Your task to perform on an android device: toggle pop-ups in chrome Image 0: 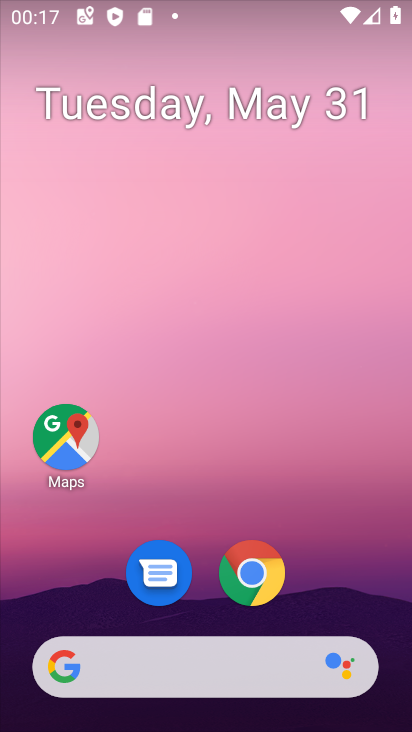
Step 0: click (279, 583)
Your task to perform on an android device: toggle pop-ups in chrome Image 1: 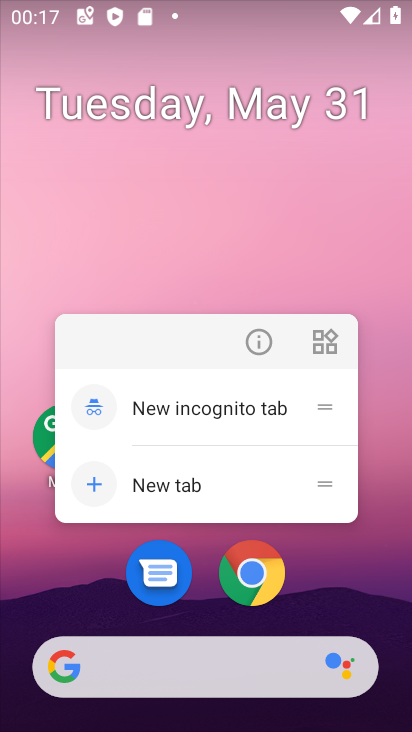
Step 1: click (253, 581)
Your task to perform on an android device: toggle pop-ups in chrome Image 2: 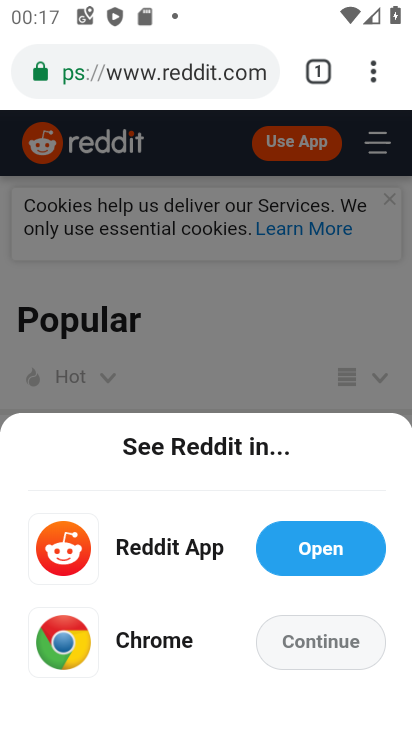
Step 2: click (381, 66)
Your task to perform on an android device: toggle pop-ups in chrome Image 3: 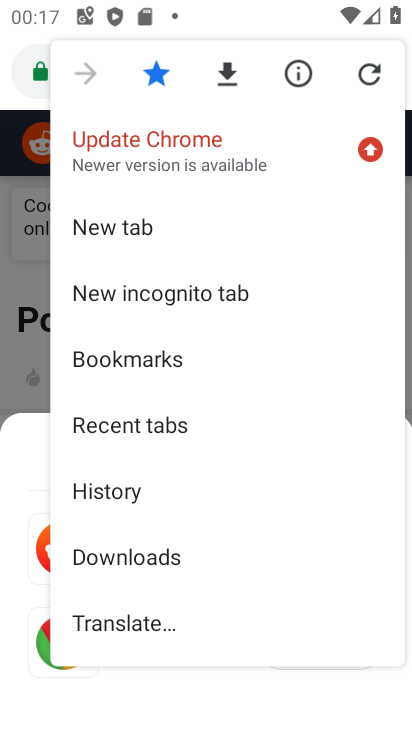
Step 3: drag from (221, 624) to (271, 39)
Your task to perform on an android device: toggle pop-ups in chrome Image 4: 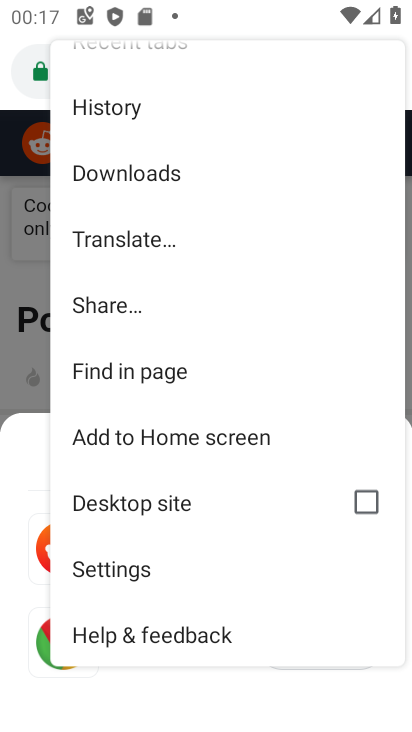
Step 4: click (158, 569)
Your task to perform on an android device: toggle pop-ups in chrome Image 5: 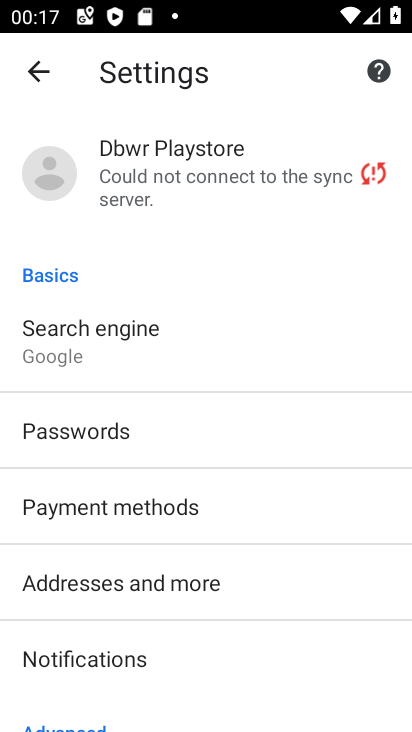
Step 5: drag from (254, 593) to (271, 10)
Your task to perform on an android device: toggle pop-ups in chrome Image 6: 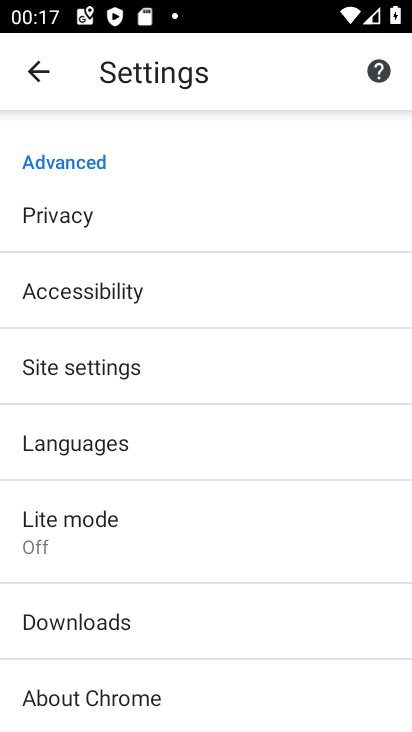
Step 6: click (180, 358)
Your task to perform on an android device: toggle pop-ups in chrome Image 7: 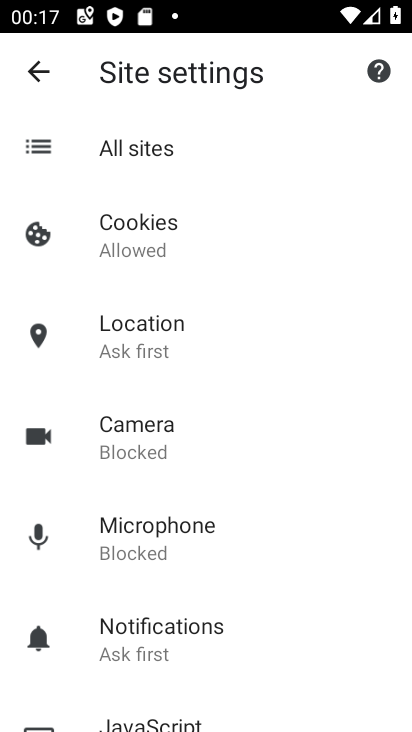
Step 7: drag from (255, 687) to (272, 20)
Your task to perform on an android device: toggle pop-ups in chrome Image 8: 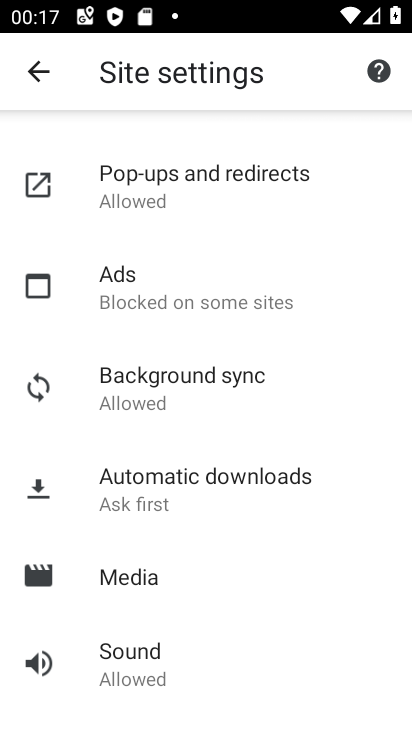
Step 8: click (246, 191)
Your task to perform on an android device: toggle pop-ups in chrome Image 9: 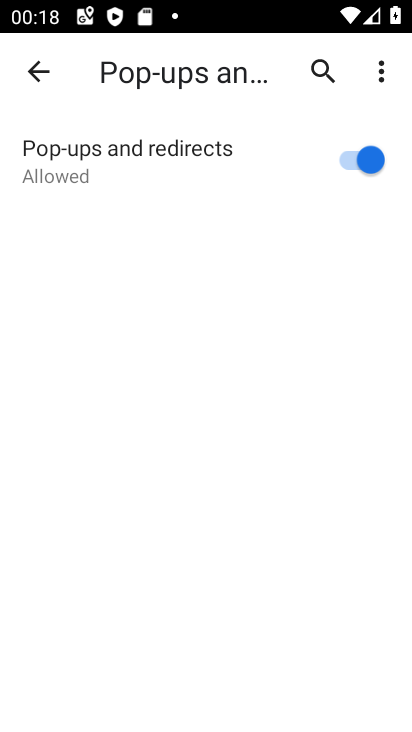
Step 9: task complete